Your task to perform on an android device: set default search engine in the chrome app Image 0: 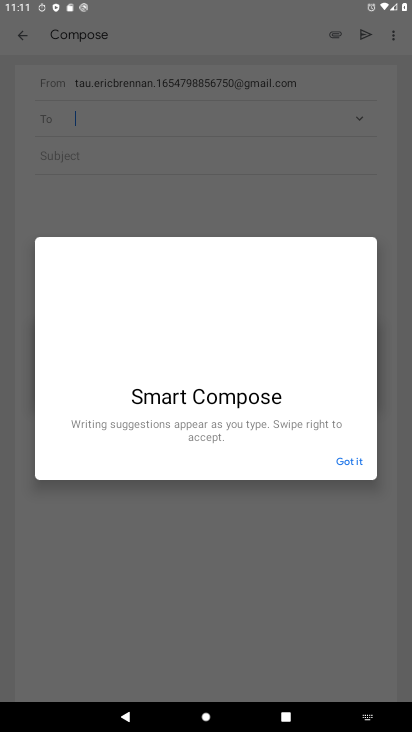
Step 0: press home button
Your task to perform on an android device: set default search engine in the chrome app Image 1: 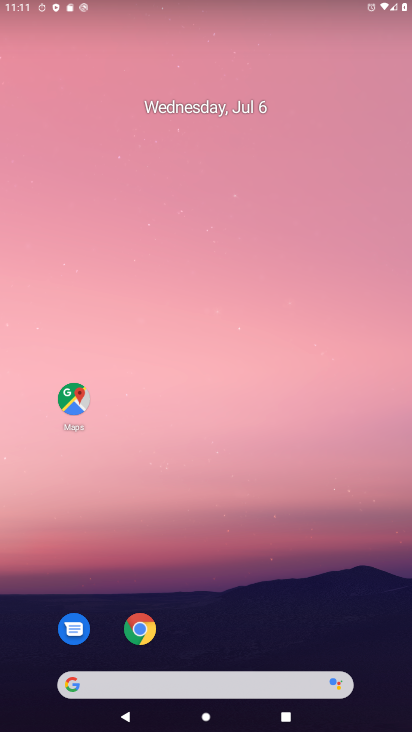
Step 1: drag from (206, 634) to (269, 141)
Your task to perform on an android device: set default search engine in the chrome app Image 2: 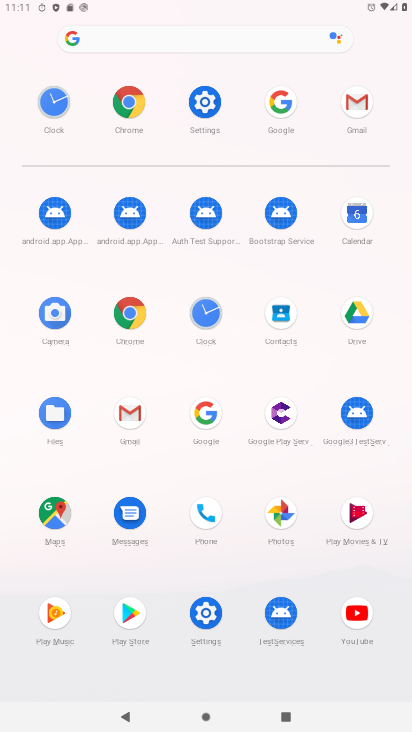
Step 2: click (127, 315)
Your task to perform on an android device: set default search engine in the chrome app Image 3: 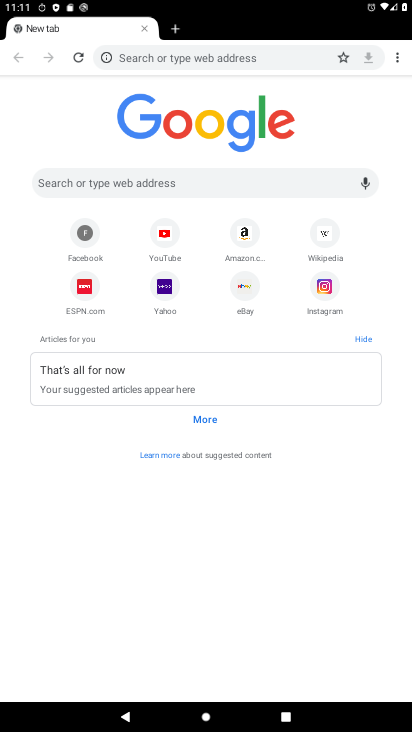
Step 3: click (393, 57)
Your task to perform on an android device: set default search engine in the chrome app Image 4: 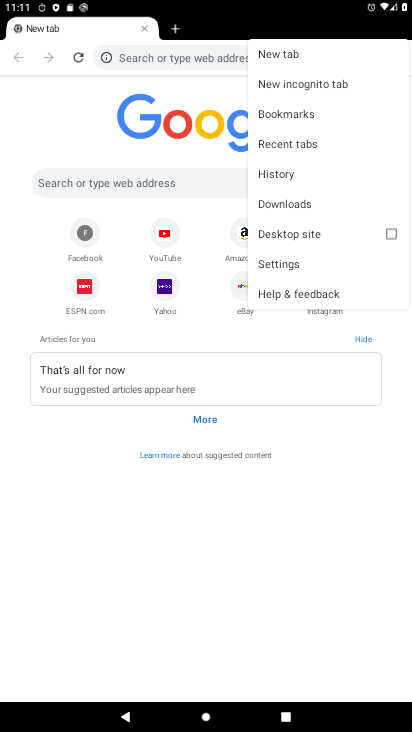
Step 4: click (300, 262)
Your task to perform on an android device: set default search engine in the chrome app Image 5: 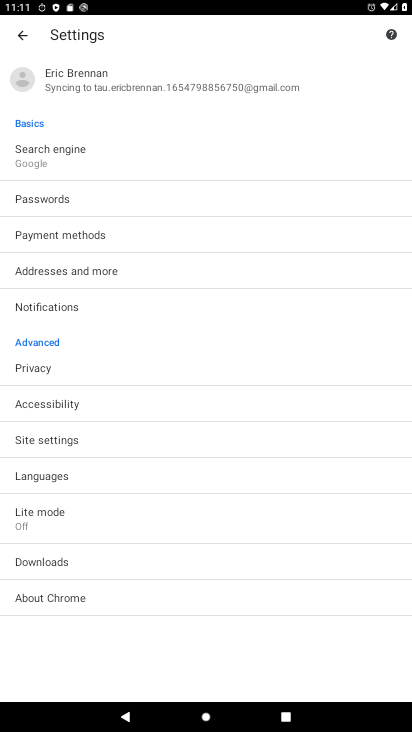
Step 5: click (94, 152)
Your task to perform on an android device: set default search engine in the chrome app Image 6: 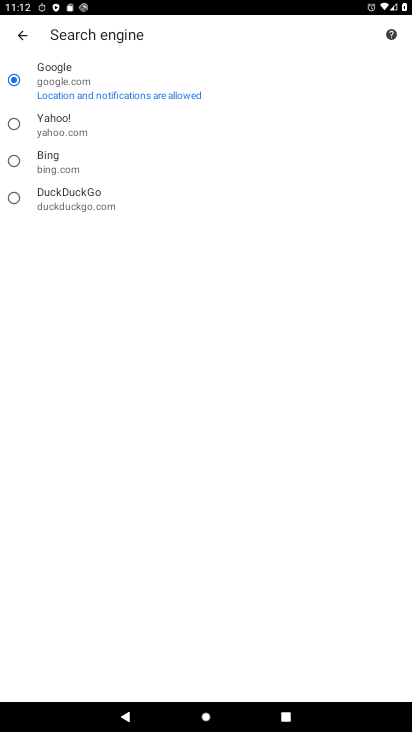
Step 6: click (9, 117)
Your task to perform on an android device: set default search engine in the chrome app Image 7: 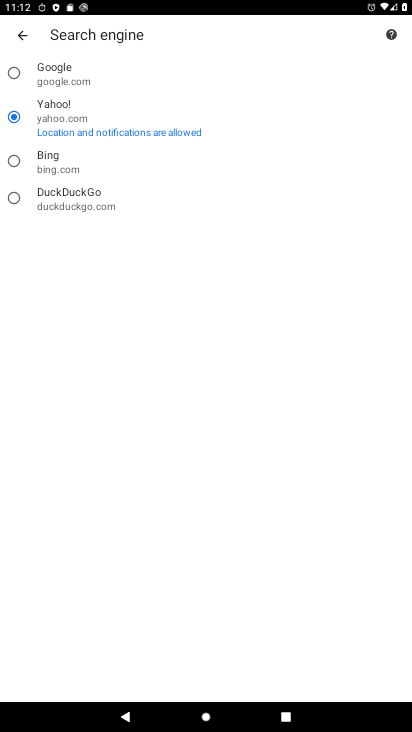
Step 7: task complete